Your task to perform on an android device: Do I have any events this weekend? Image 0: 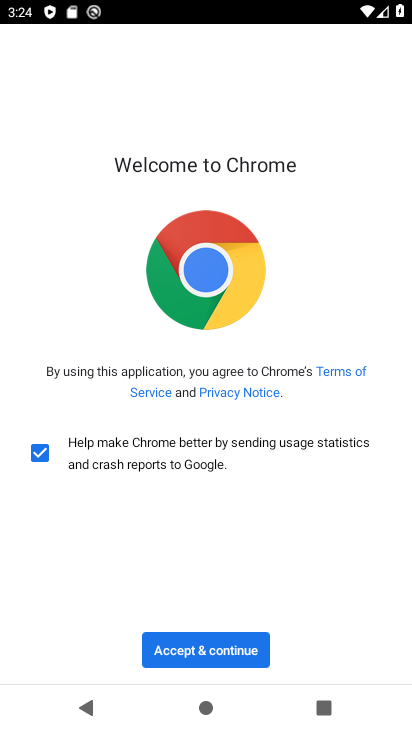
Step 0: press home button
Your task to perform on an android device: Do I have any events this weekend? Image 1: 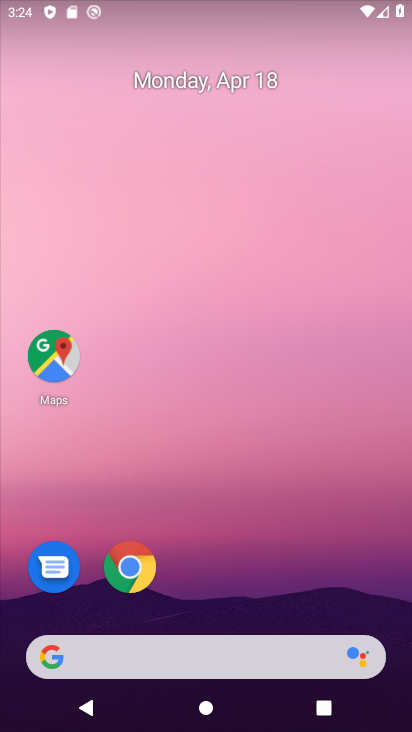
Step 1: drag from (298, 175) to (304, 123)
Your task to perform on an android device: Do I have any events this weekend? Image 2: 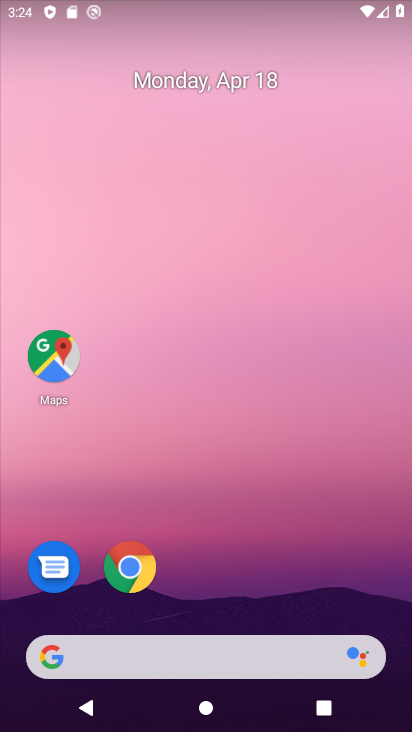
Step 2: drag from (243, 384) to (262, 587)
Your task to perform on an android device: Do I have any events this weekend? Image 3: 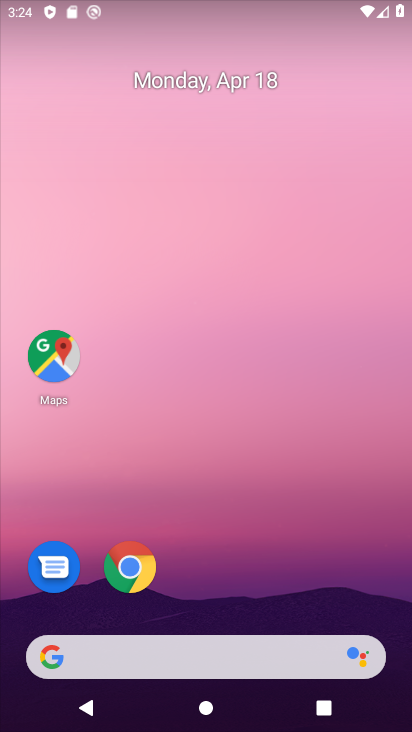
Step 3: drag from (220, 406) to (218, 258)
Your task to perform on an android device: Do I have any events this weekend? Image 4: 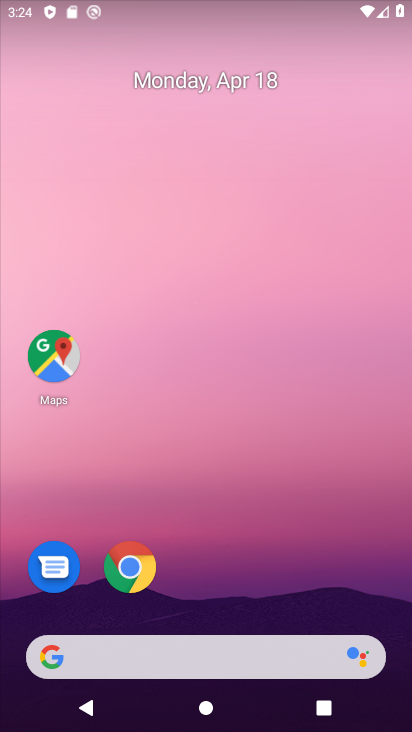
Step 4: drag from (254, 545) to (293, 67)
Your task to perform on an android device: Do I have any events this weekend? Image 5: 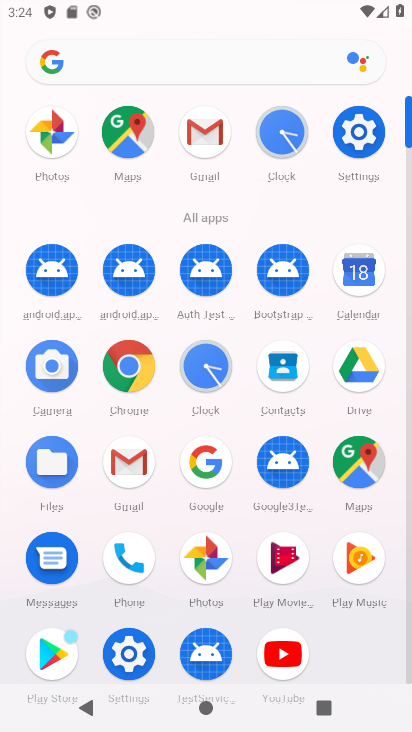
Step 5: click (363, 316)
Your task to perform on an android device: Do I have any events this weekend? Image 6: 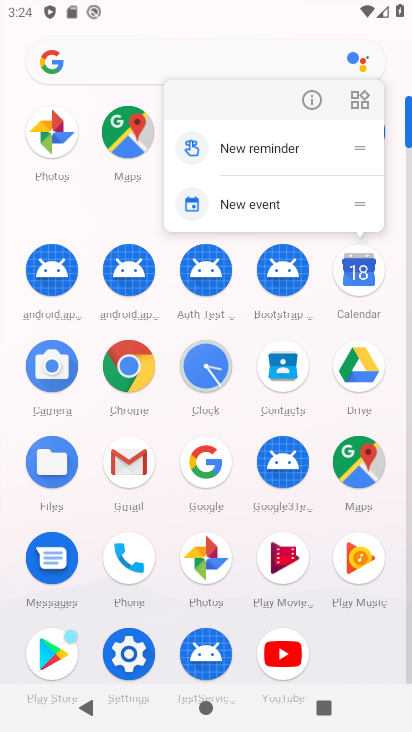
Step 6: click (349, 276)
Your task to perform on an android device: Do I have any events this weekend? Image 7: 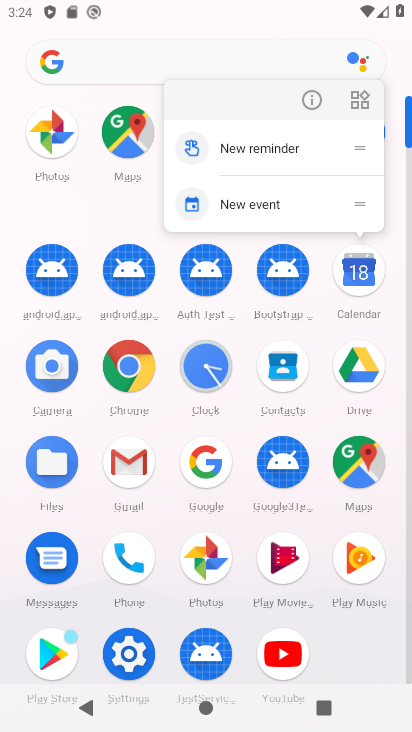
Step 7: click (364, 287)
Your task to perform on an android device: Do I have any events this weekend? Image 8: 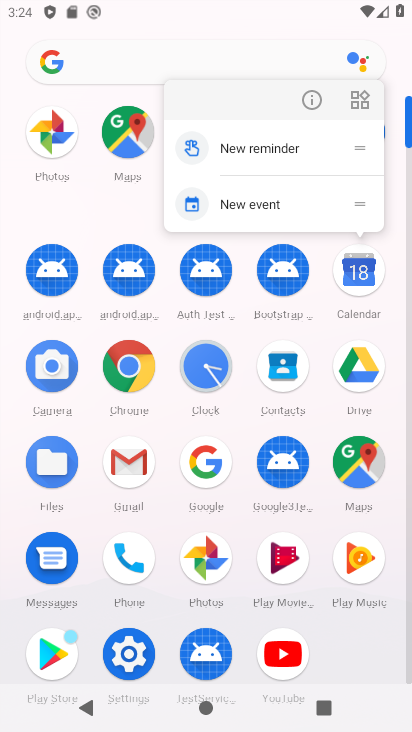
Step 8: click (363, 287)
Your task to perform on an android device: Do I have any events this weekend? Image 9: 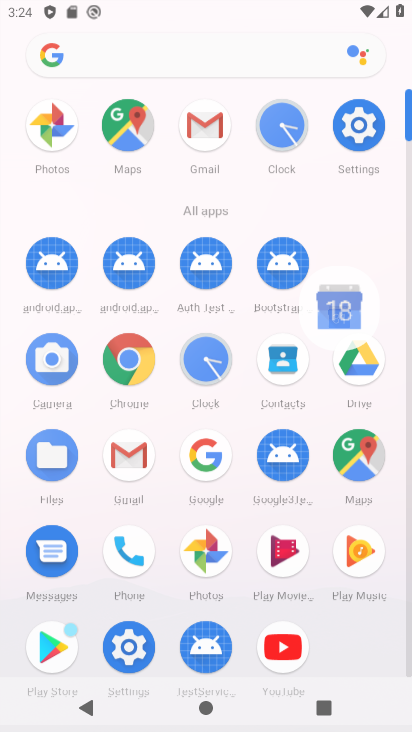
Step 9: click (362, 287)
Your task to perform on an android device: Do I have any events this weekend? Image 10: 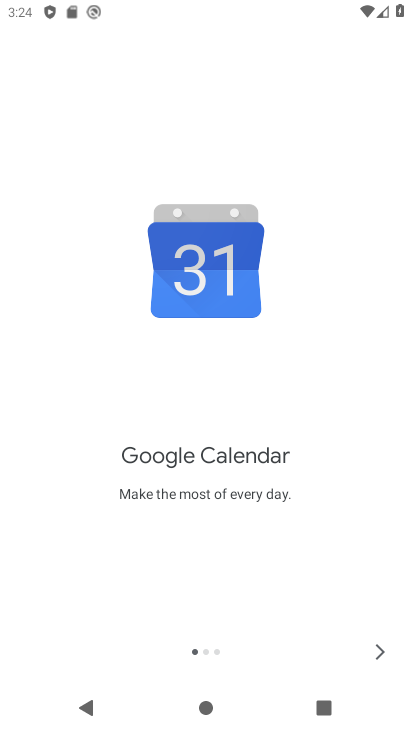
Step 10: click (370, 654)
Your task to perform on an android device: Do I have any events this weekend? Image 11: 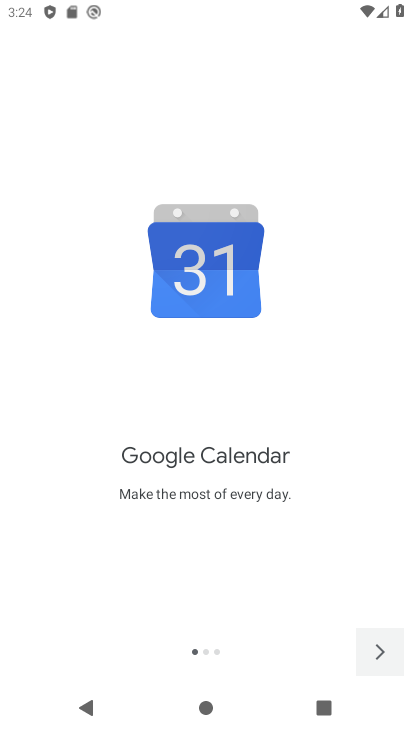
Step 11: click (370, 654)
Your task to perform on an android device: Do I have any events this weekend? Image 12: 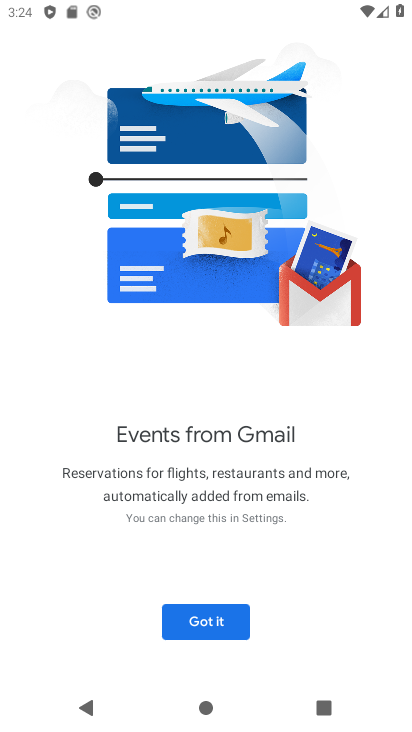
Step 12: click (228, 618)
Your task to perform on an android device: Do I have any events this weekend? Image 13: 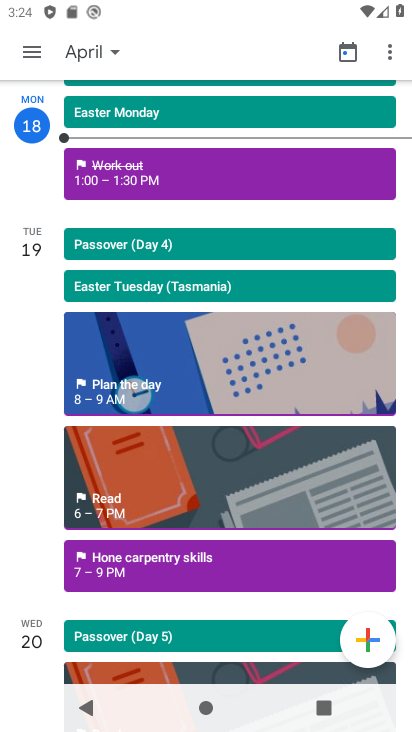
Step 13: click (89, 62)
Your task to perform on an android device: Do I have any events this weekend? Image 14: 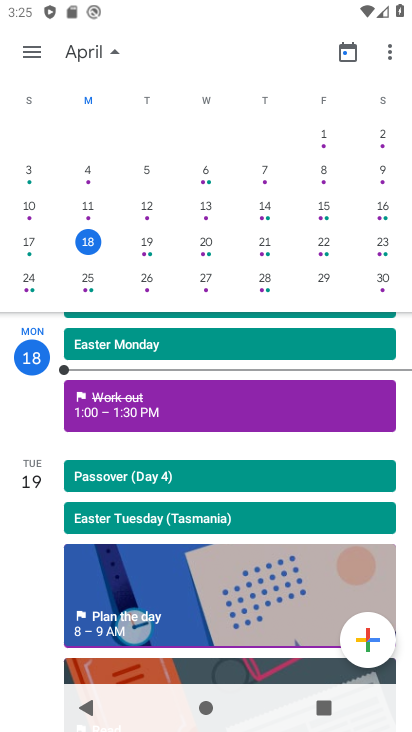
Step 14: click (143, 252)
Your task to perform on an android device: Do I have any events this weekend? Image 15: 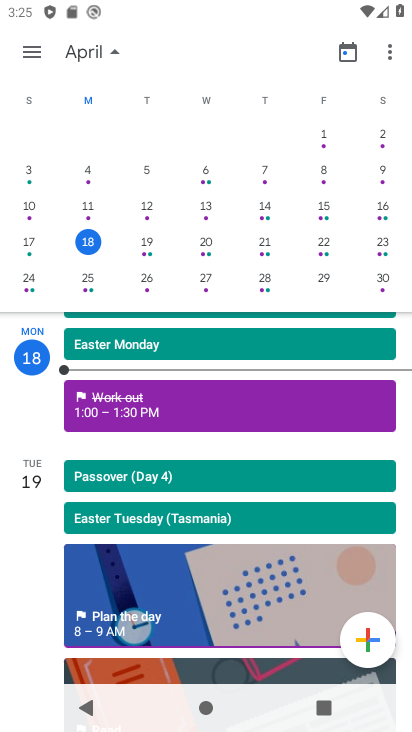
Step 15: click (146, 254)
Your task to perform on an android device: Do I have any events this weekend? Image 16: 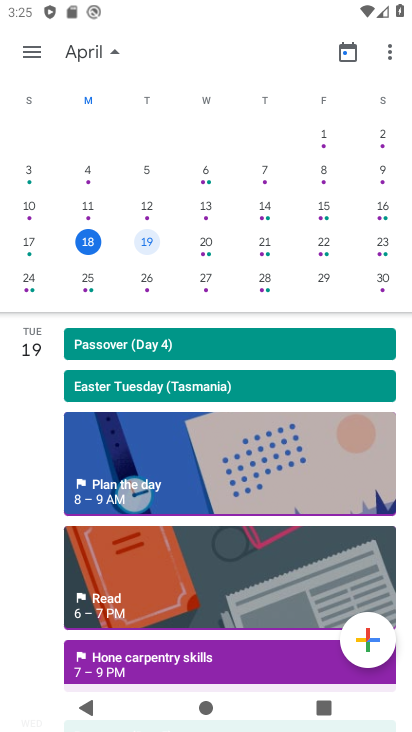
Step 16: task complete